Your task to perform on an android device: turn on the 24-hour format for clock Image 0: 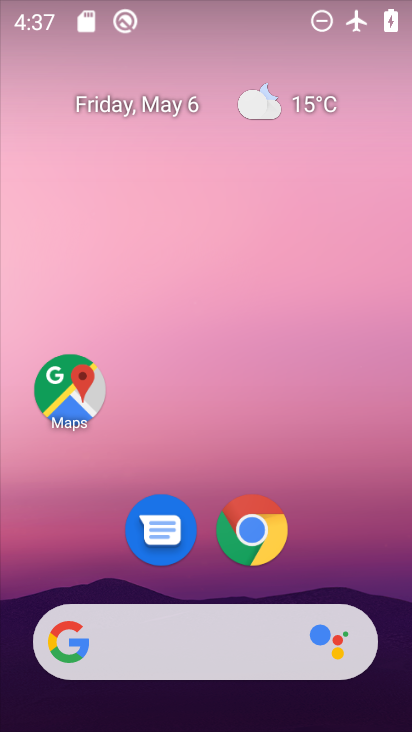
Step 0: drag from (346, 452) to (312, 100)
Your task to perform on an android device: turn on the 24-hour format for clock Image 1: 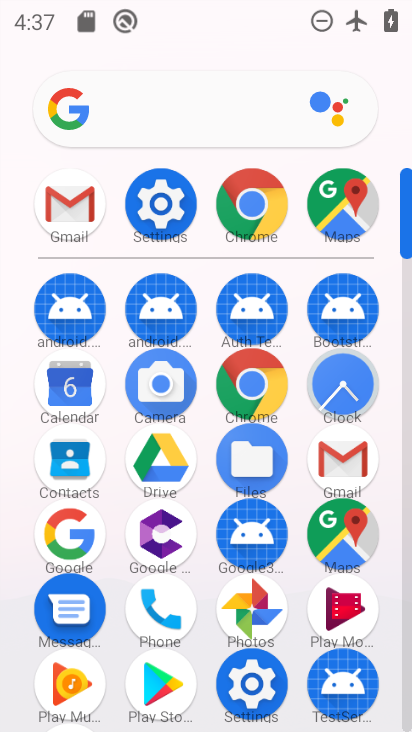
Step 1: click (350, 375)
Your task to perform on an android device: turn on the 24-hour format for clock Image 2: 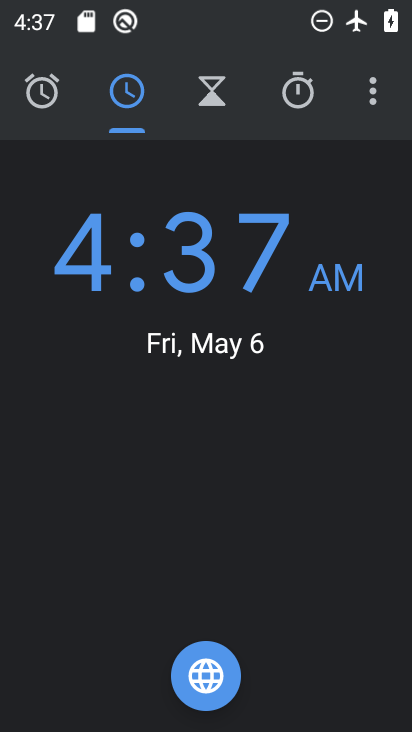
Step 2: click (379, 89)
Your task to perform on an android device: turn on the 24-hour format for clock Image 3: 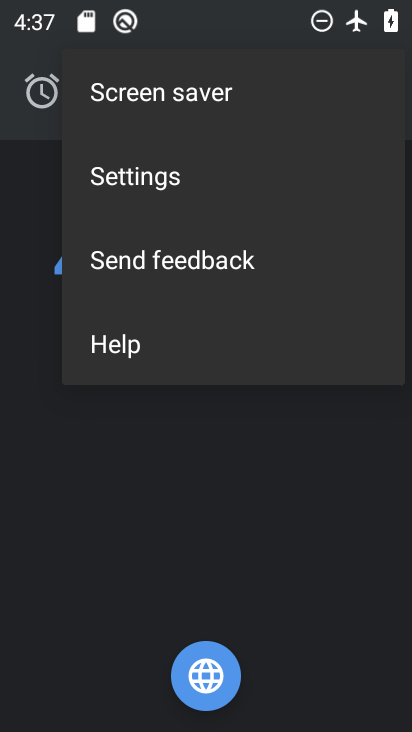
Step 3: click (123, 174)
Your task to perform on an android device: turn on the 24-hour format for clock Image 4: 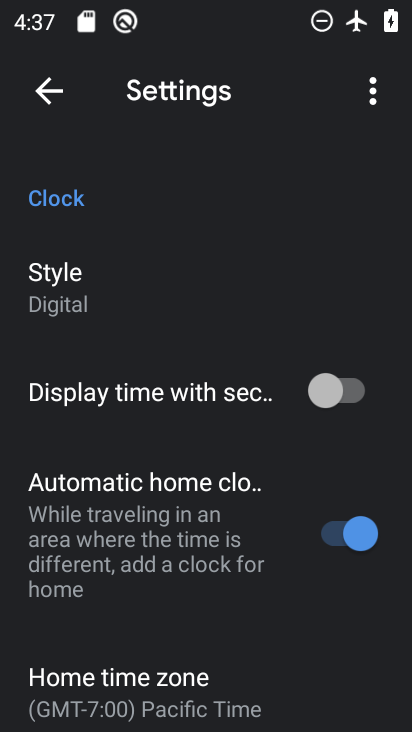
Step 4: drag from (224, 604) to (257, 243)
Your task to perform on an android device: turn on the 24-hour format for clock Image 5: 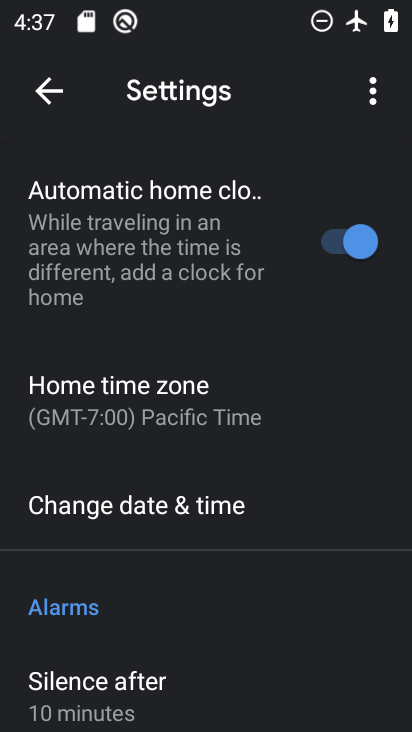
Step 5: drag from (172, 612) to (132, 335)
Your task to perform on an android device: turn on the 24-hour format for clock Image 6: 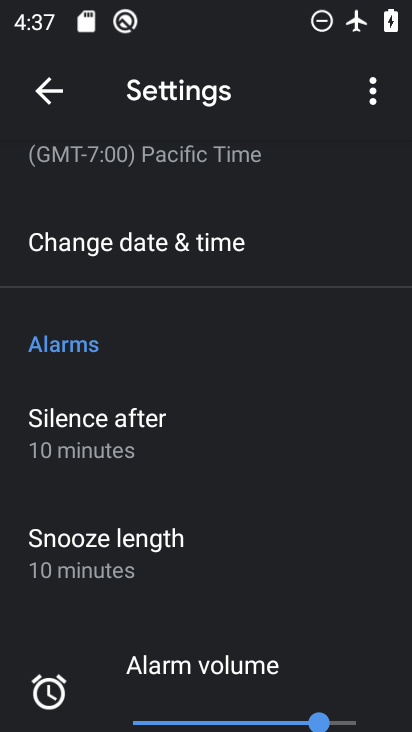
Step 6: click (116, 260)
Your task to perform on an android device: turn on the 24-hour format for clock Image 7: 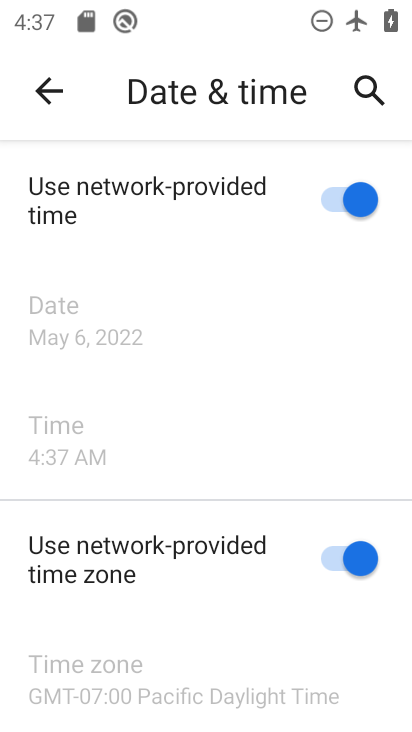
Step 7: drag from (177, 588) to (131, 230)
Your task to perform on an android device: turn on the 24-hour format for clock Image 8: 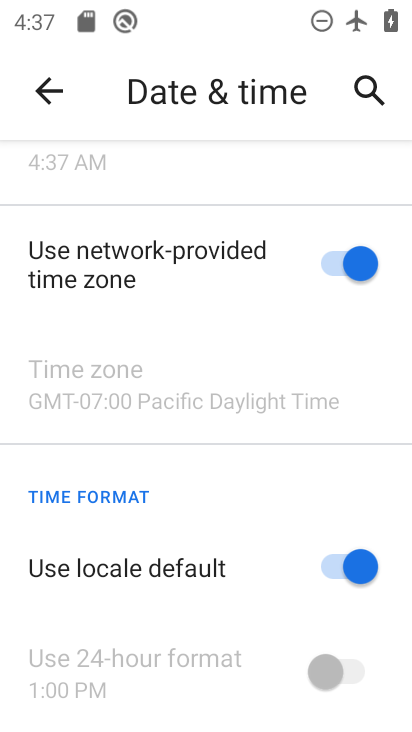
Step 8: drag from (220, 611) to (188, 251)
Your task to perform on an android device: turn on the 24-hour format for clock Image 9: 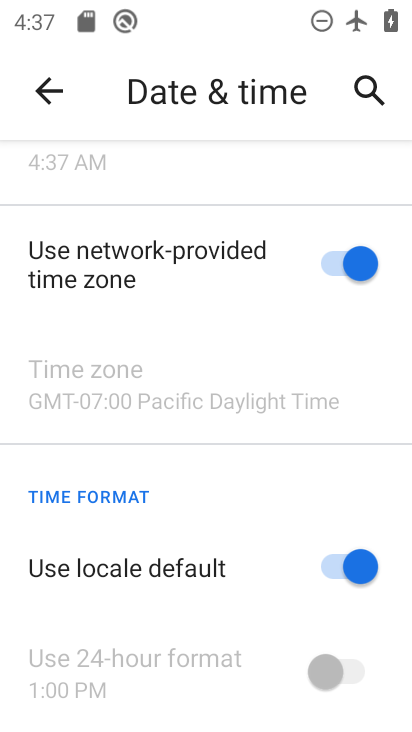
Step 9: click (349, 568)
Your task to perform on an android device: turn on the 24-hour format for clock Image 10: 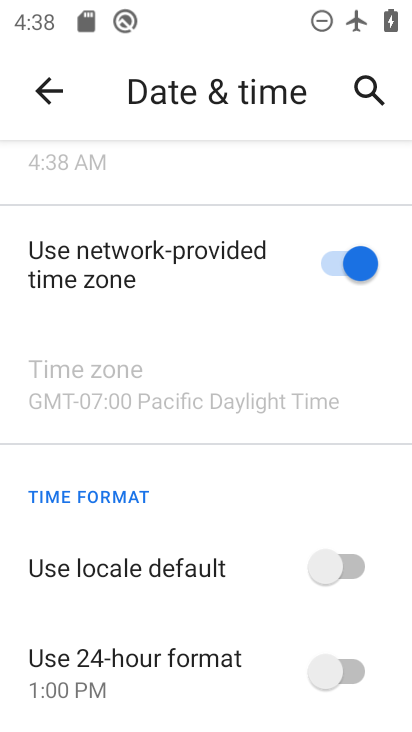
Step 10: task complete